Your task to perform on an android device: delete the emails in spam in the gmail app Image 0: 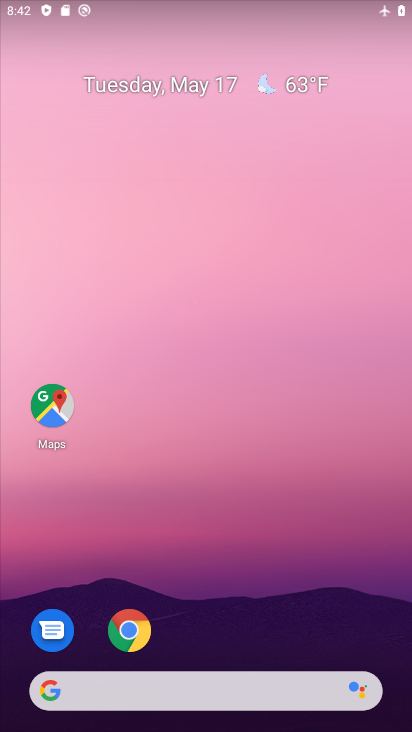
Step 0: drag from (213, 639) to (376, 142)
Your task to perform on an android device: delete the emails in spam in the gmail app Image 1: 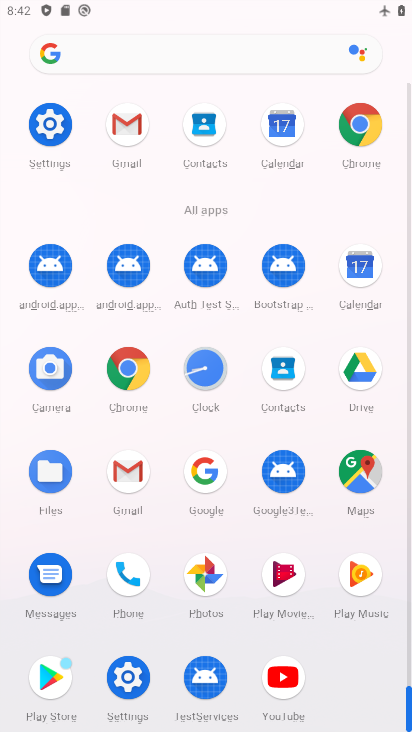
Step 1: click (125, 480)
Your task to perform on an android device: delete the emails in spam in the gmail app Image 2: 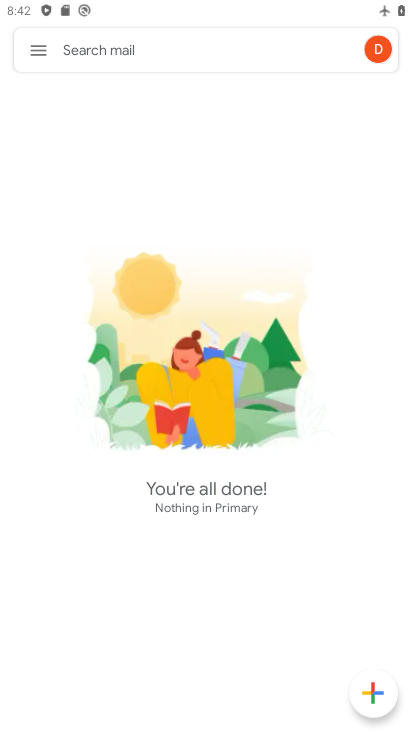
Step 2: click (37, 57)
Your task to perform on an android device: delete the emails in spam in the gmail app Image 3: 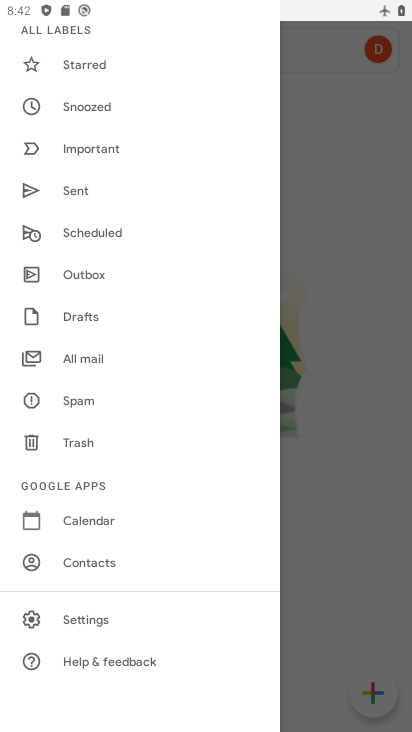
Step 3: click (123, 392)
Your task to perform on an android device: delete the emails in spam in the gmail app Image 4: 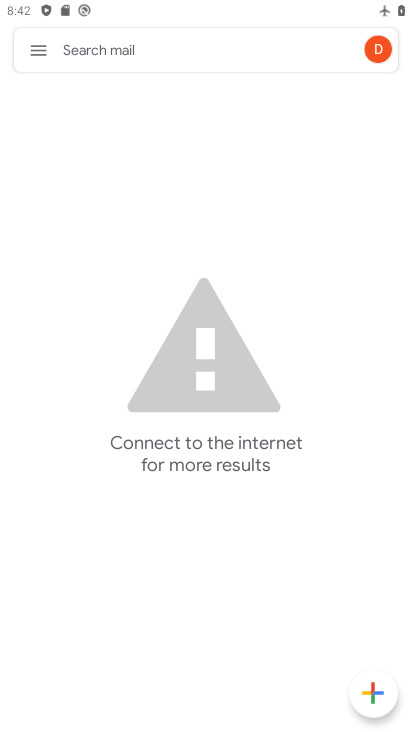
Step 4: task complete